Your task to perform on an android device: delete browsing data in the chrome app Image 0: 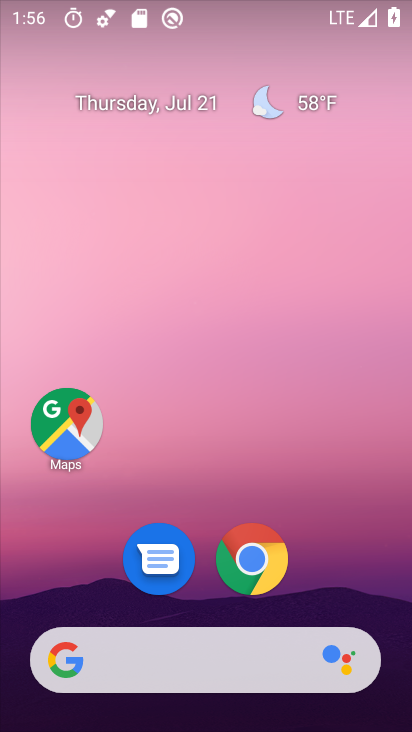
Step 0: drag from (370, 571) to (372, 127)
Your task to perform on an android device: delete browsing data in the chrome app Image 1: 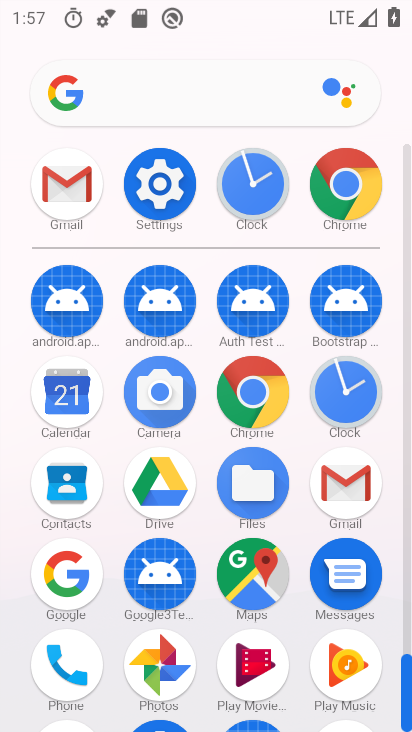
Step 1: click (264, 401)
Your task to perform on an android device: delete browsing data in the chrome app Image 2: 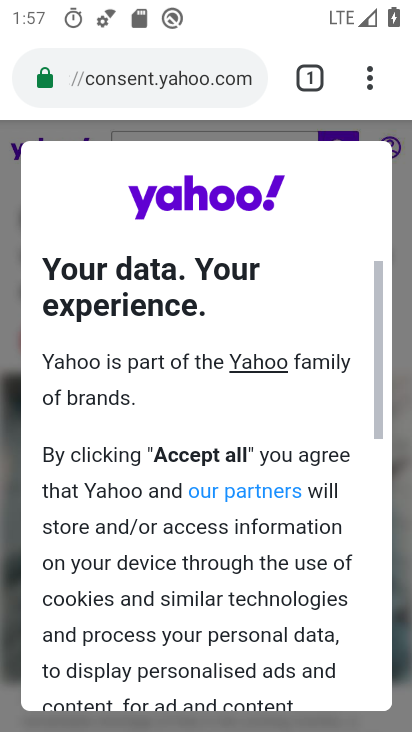
Step 2: click (369, 89)
Your task to perform on an android device: delete browsing data in the chrome app Image 3: 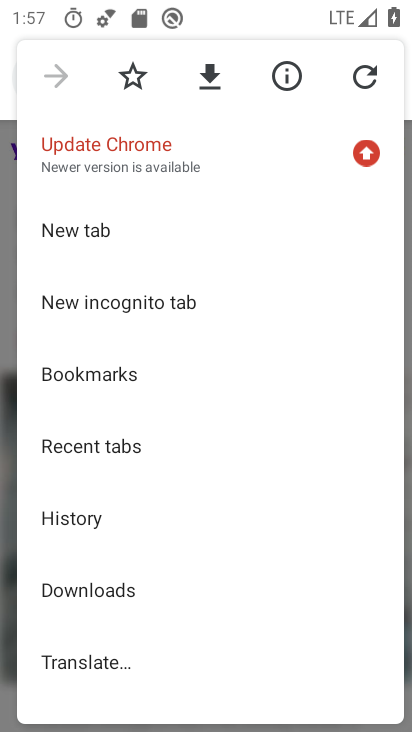
Step 3: drag from (269, 477) to (277, 382)
Your task to perform on an android device: delete browsing data in the chrome app Image 4: 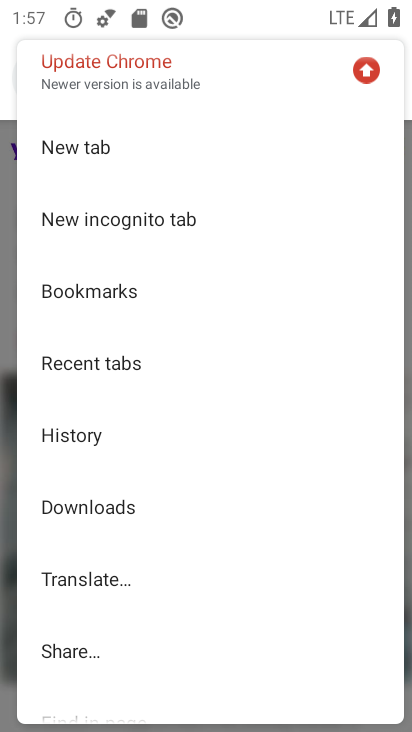
Step 4: drag from (282, 495) to (282, 325)
Your task to perform on an android device: delete browsing data in the chrome app Image 5: 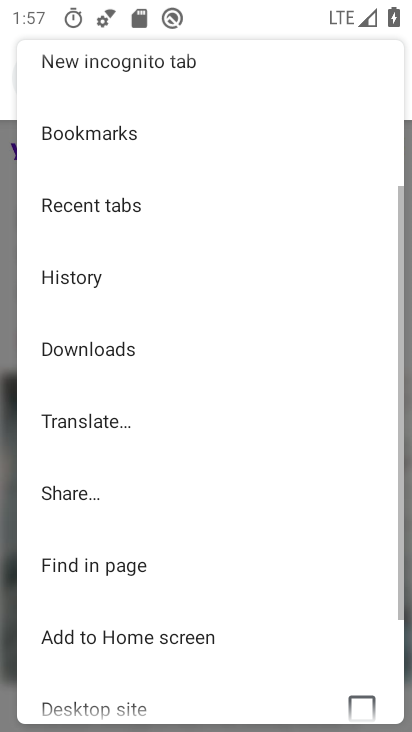
Step 5: drag from (265, 487) to (282, 203)
Your task to perform on an android device: delete browsing data in the chrome app Image 6: 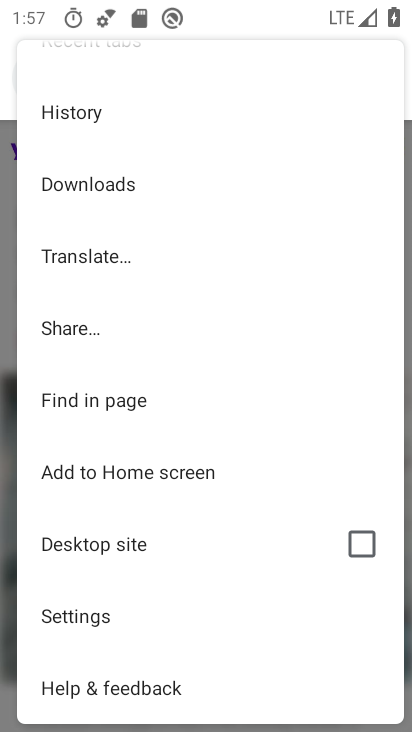
Step 6: drag from (282, 508) to (287, 367)
Your task to perform on an android device: delete browsing data in the chrome app Image 7: 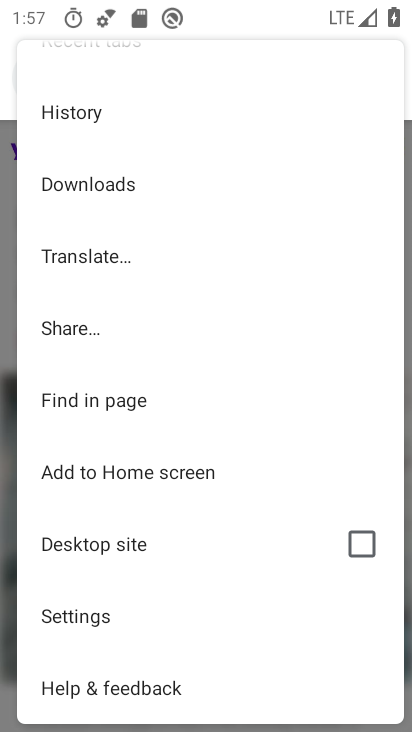
Step 7: click (96, 601)
Your task to perform on an android device: delete browsing data in the chrome app Image 8: 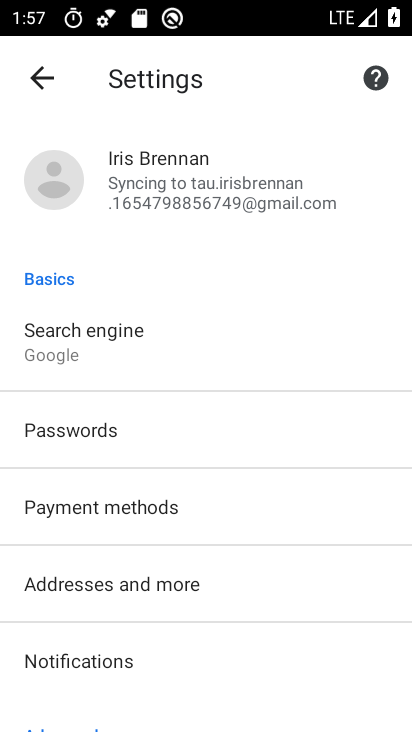
Step 8: drag from (317, 561) to (322, 297)
Your task to perform on an android device: delete browsing data in the chrome app Image 9: 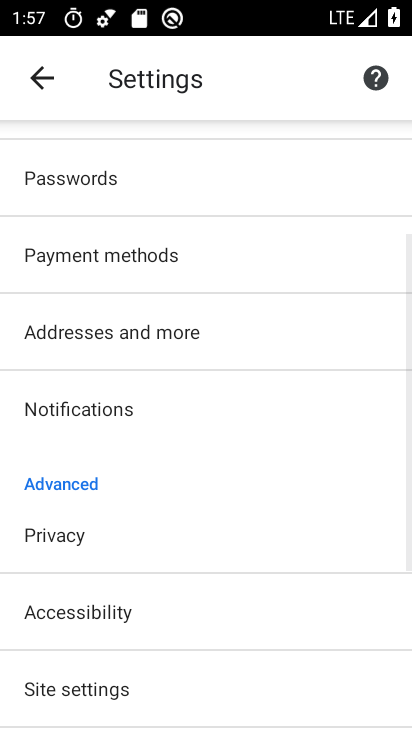
Step 9: drag from (304, 493) to (311, 307)
Your task to perform on an android device: delete browsing data in the chrome app Image 10: 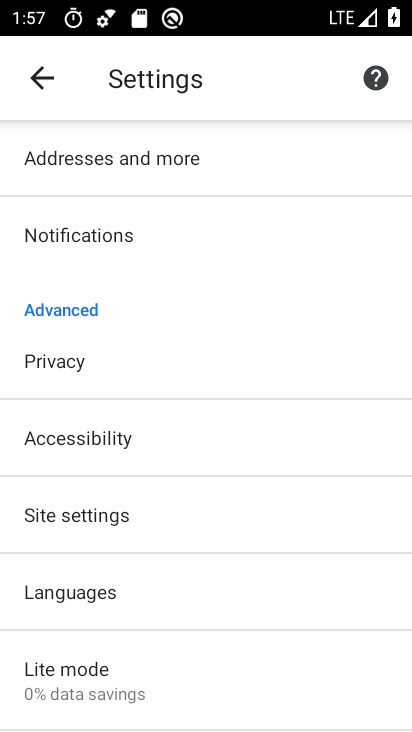
Step 10: drag from (295, 501) to (299, 347)
Your task to perform on an android device: delete browsing data in the chrome app Image 11: 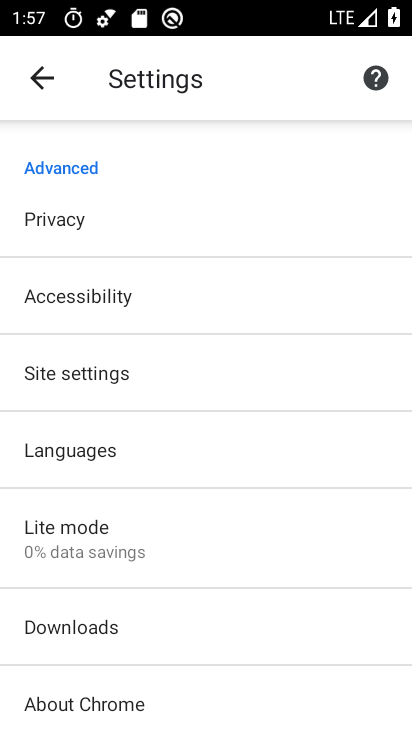
Step 11: drag from (256, 313) to (255, 424)
Your task to perform on an android device: delete browsing data in the chrome app Image 12: 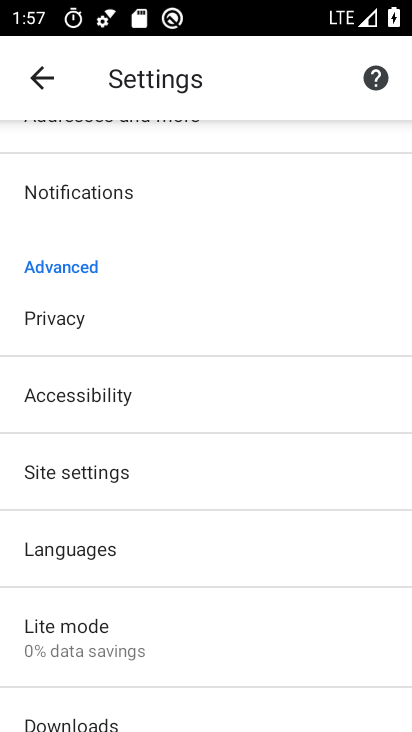
Step 12: click (230, 324)
Your task to perform on an android device: delete browsing data in the chrome app Image 13: 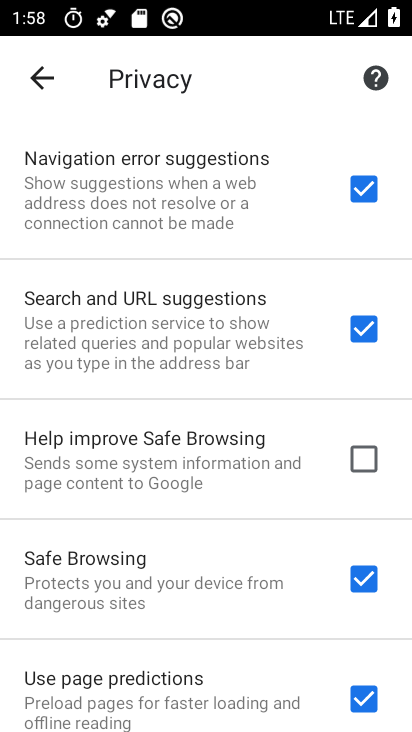
Step 13: drag from (233, 534) to (261, 365)
Your task to perform on an android device: delete browsing data in the chrome app Image 14: 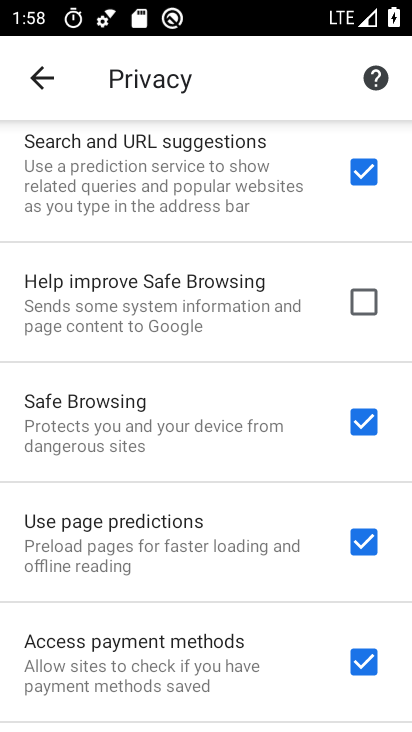
Step 14: drag from (250, 495) to (262, 286)
Your task to perform on an android device: delete browsing data in the chrome app Image 15: 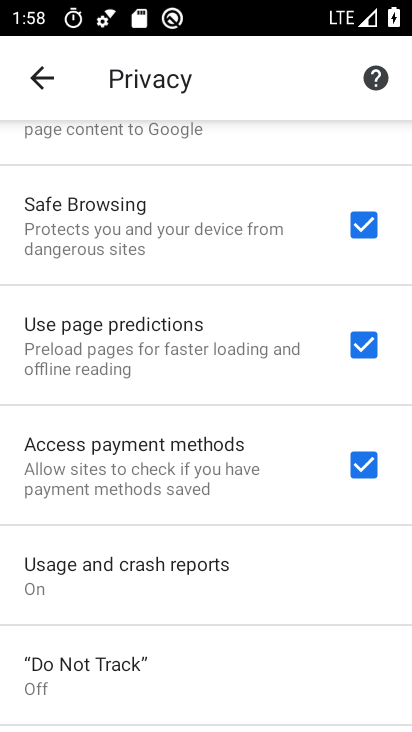
Step 15: drag from (226, 623) to (239, 391)
Your task to perform on an android device: delete browsing data in the chrome app Image 16: 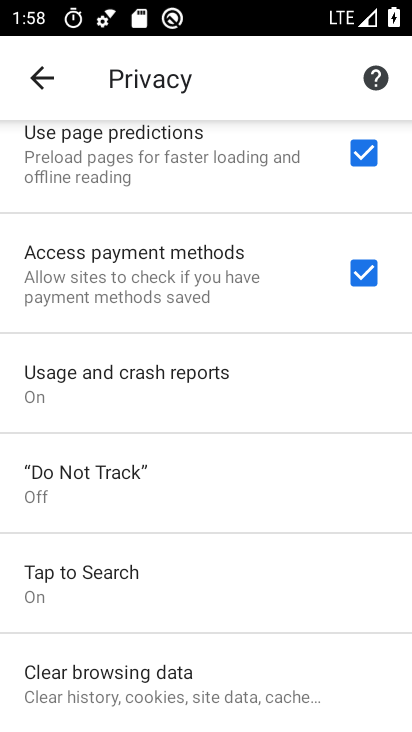
Step 16: click (231, 695)
Your task to perform on an android device: delete browsing data in the chrome app Image 17: 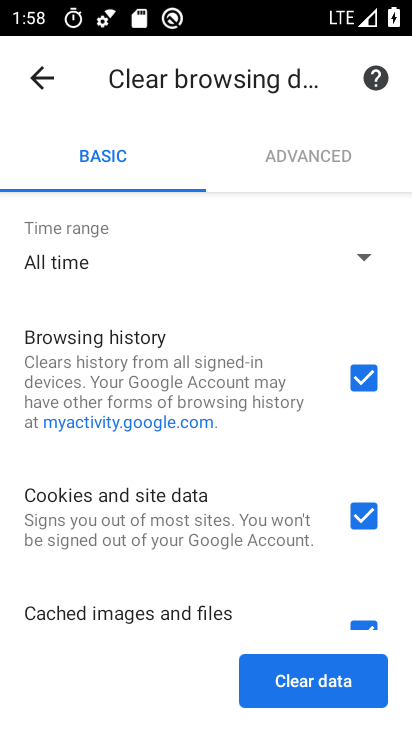
Step 17: click (316, 679)
Your task to perform on an android device: delete browsing data in the chrome app Image 18: 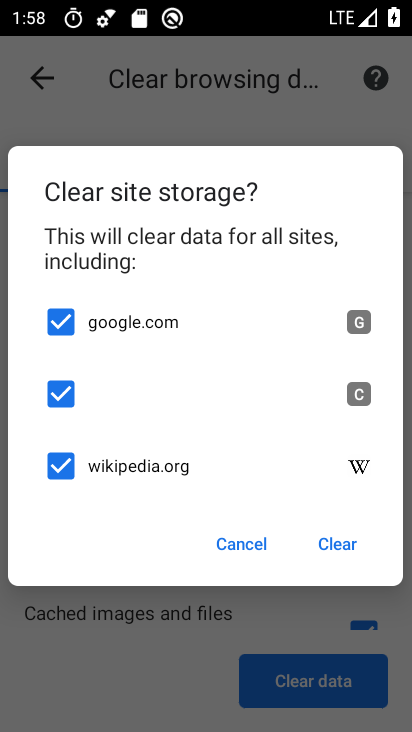
Step 18: click (343, 541)
Your task to perform on an android device: delete browsing data in the chrome app Image 19: 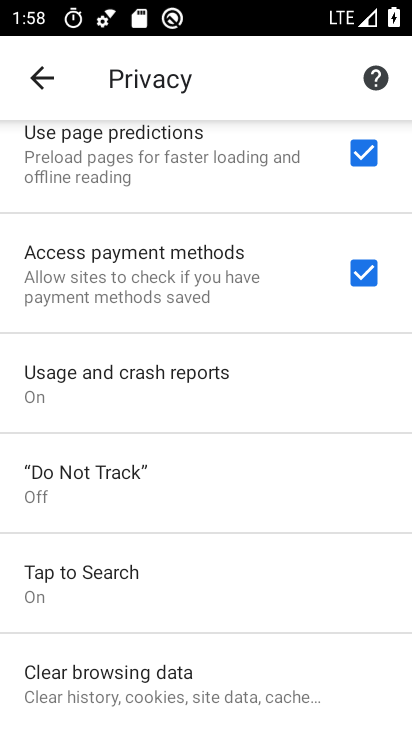
Step 19: task complete